Your task to perform on an android device: change the clock display to digital Image 0: 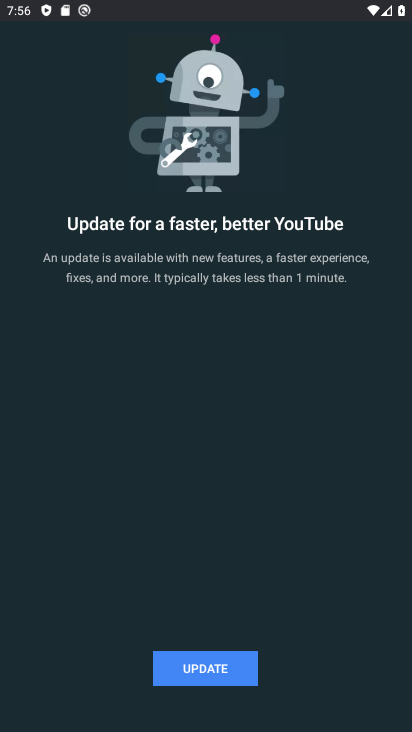
Step 0: press back button
Your task to perform on an android device: change the clock display to digital Image 1: 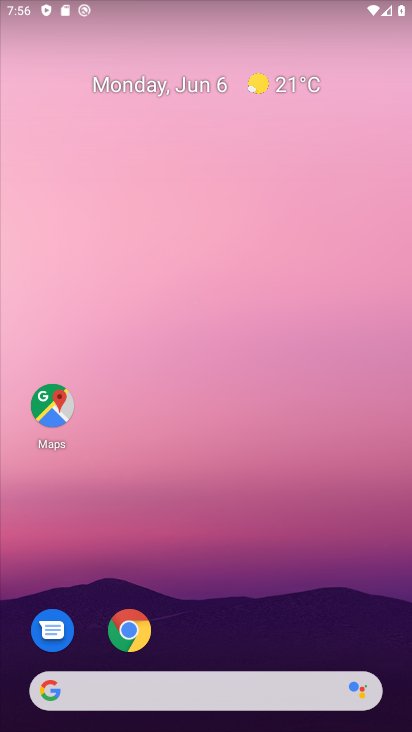
Step 1: drag from (248, 618) to (257, 131)
Your task to perform on an android device: change the clock display to digital Image 2: 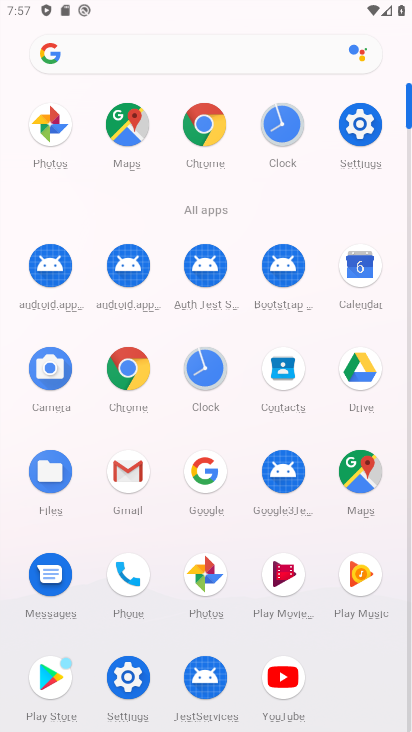
Step 2: click (281, 124)
Your task to perform on an android device: change the clock display to digital Image 3: 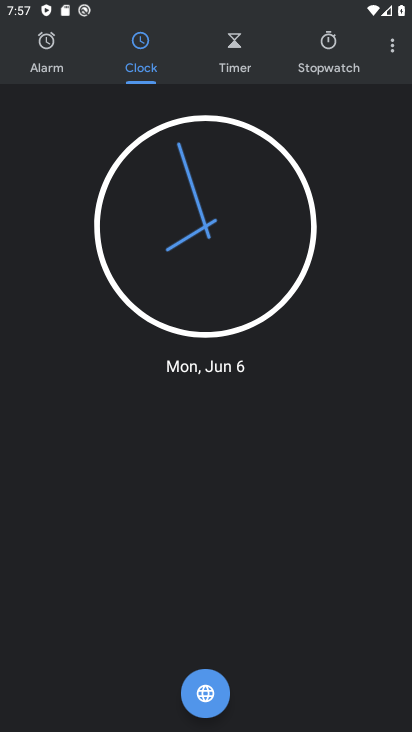
Step 3: click (394, 46)
Your task to perform on an android device: change the clock display to digital Image 4: 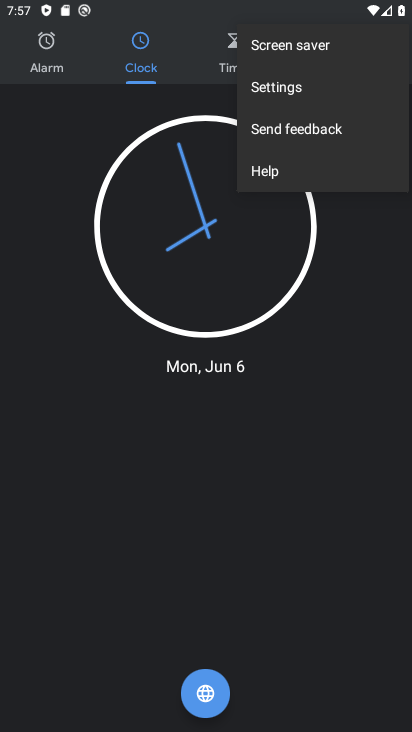
Step 4: click (284, 88)
Your task to perform on an android device: change the clock display to digital Image 5: 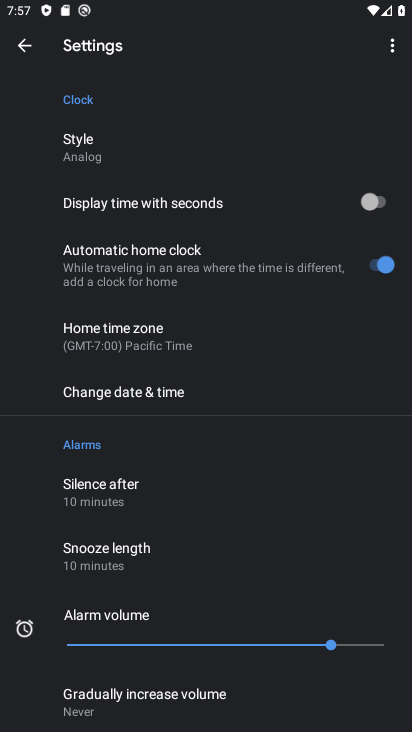
Step 5: click (101, 159)
Your task to perform on an android device: change the clock display to digital Image 6: 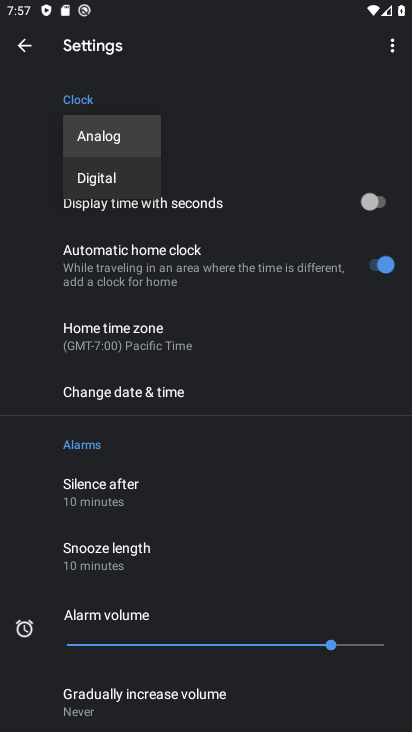
Step 6: click (106, 180)
Your task to perform on an android device: change the clock display to digital Image 7: 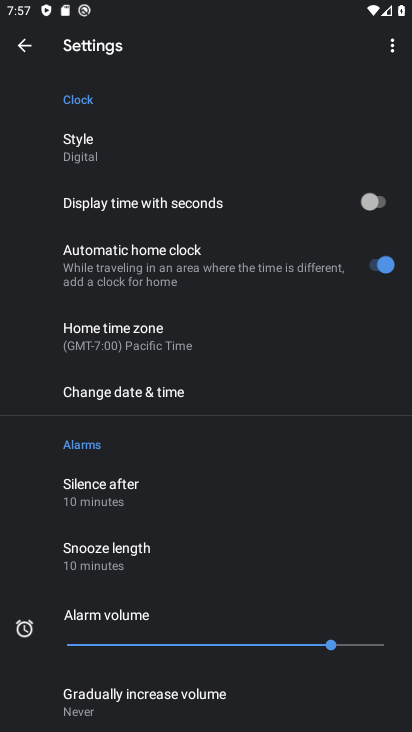
Step 7: task complete